Your task to perform on an android device: Set the phone to "Do not disturb". Image 0: 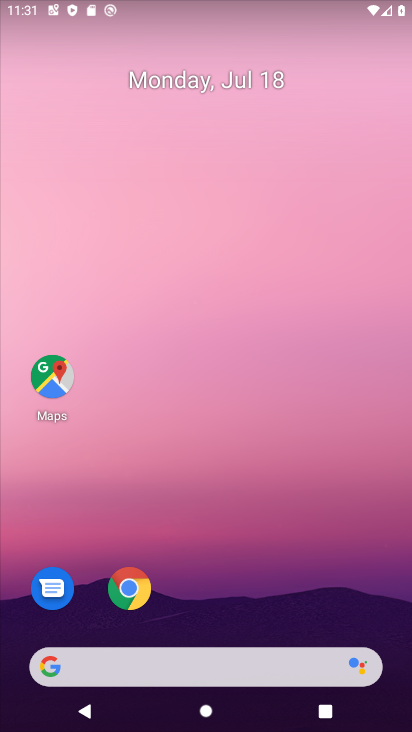
Step 0: drag from (222, 650) to (207, 167)
Your task to perform on an android device: Set the phone to "Do not disturb". Image 1: 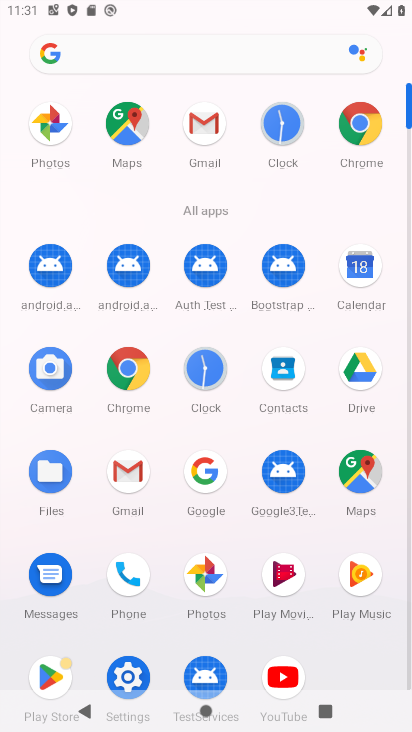
Step 1: click (117, 666)
Your task to perform on an android device: Set the phone to "Do not disturb". Image 2: 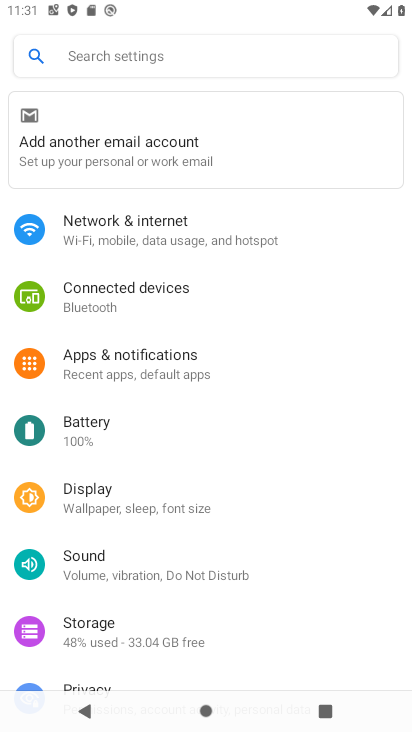
Step 2: click (140, 574)
Your task to perform on an android device: Set the phone to "Do not disturb". Image 3: 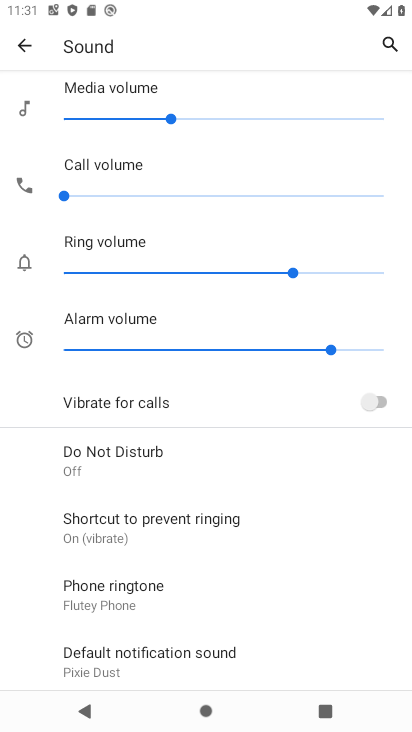
Step 3: click (111, 456)
Your task to perform on an android device: Set the phone to "Do not disturb". Image 4: 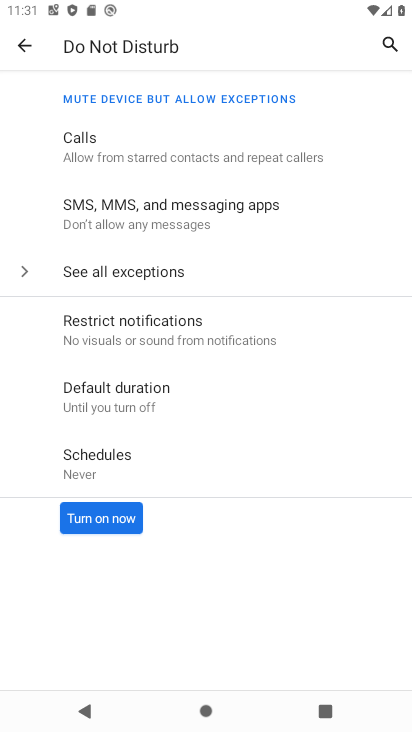
Step 4: click (116, 520)
Your task to perform on an android device: Set the phone to "Do not disturb". Image 5: 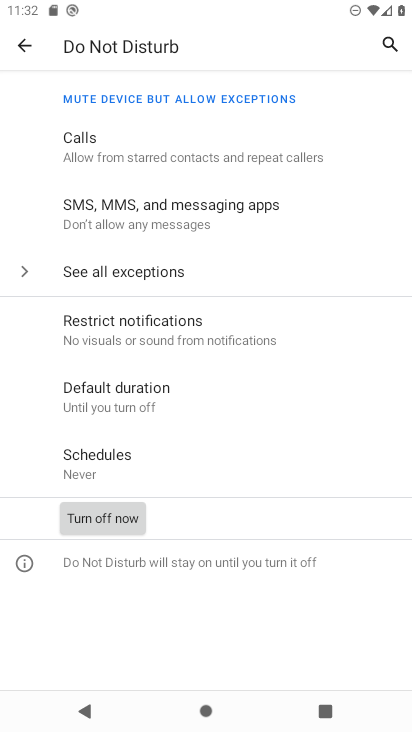
Step 5: task complete